Your task to perform on an android device: check battery use Image 0: 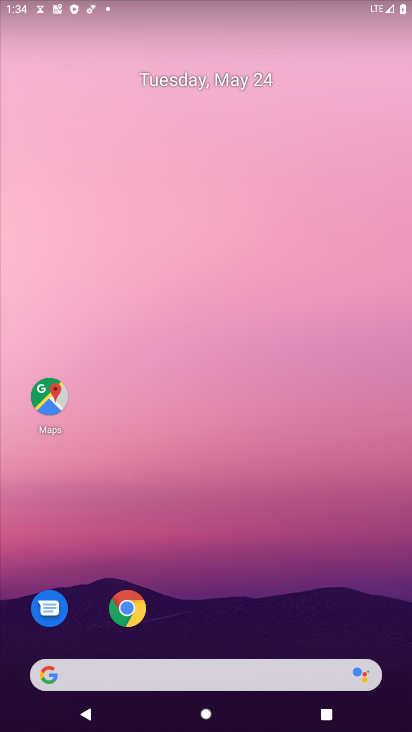
Step 0: drag from (293, 627) to (218, 246)
Your task to perform on an android device: check battery use Image 1: 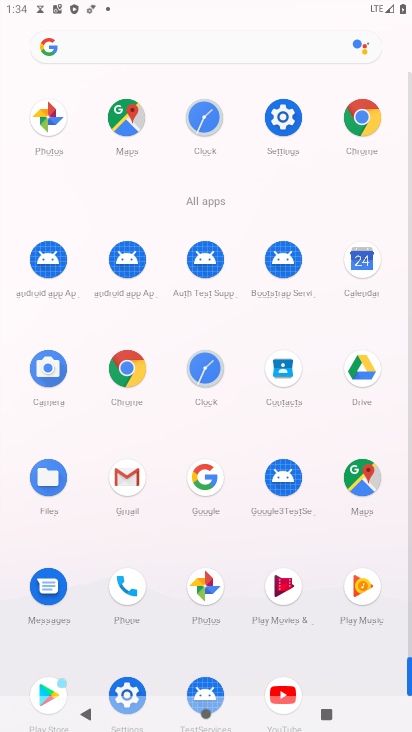
Step 1: click (279, 125)
Your task to perform on an android device: check battery use Image 2: 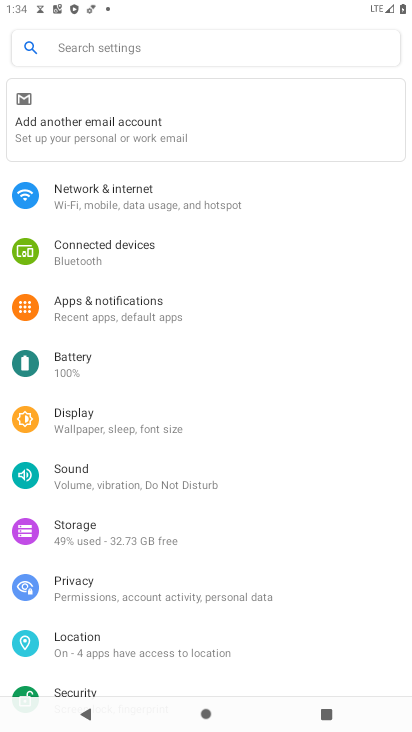
Step 2: click (180, 373)
Your task to perform on an android device: check battery use Image 3: 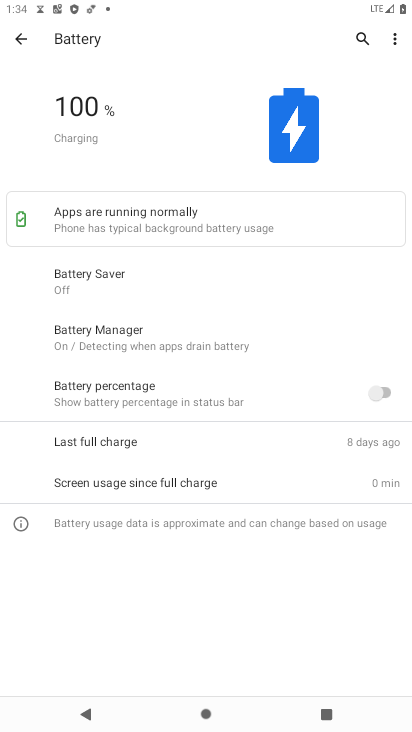
Step 3: task complete